Your task to perform on an android device: Empty the shopping cart on target.com. Add bose quietcomfort 35 to the cart on target.com, then select checkout. Image 0: 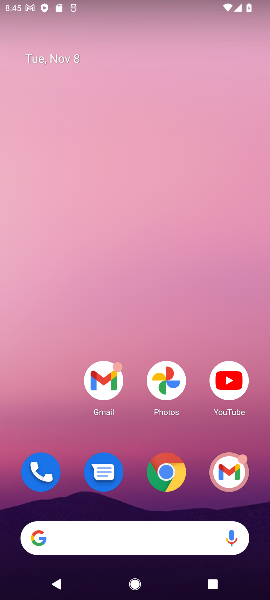
Step 0: click (168, 474)
Your task to perform on an android device: Empty the shopping cart on target.com. Add bose quietcomfort 35 to the cart on target.com, then select checkout. Image 1: 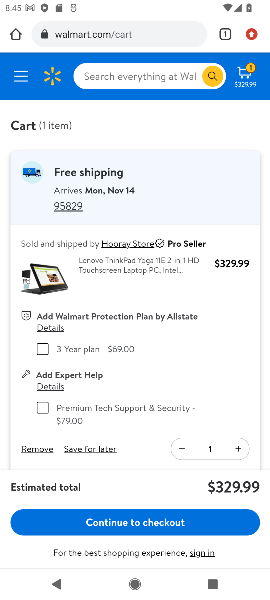
Step 1: click (160, 31)
Your task to perform on an android device: Empty the shopping cart on target.com. Add bose quietcomfort 35 to the cart on target.com, then select checkout. Image 2: 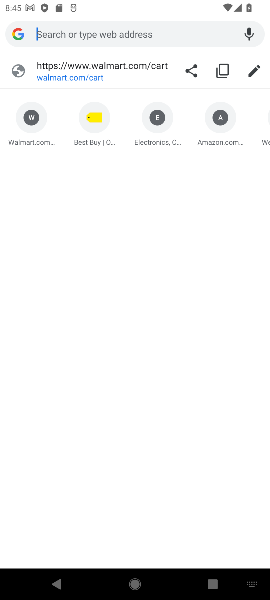
Step 2: type "target.com"
Your task to perform on an android device: Empty the shopping cart on target.com. Add bose quietcomfort 35 to the cart on target.com, then select checkout. Image 3: 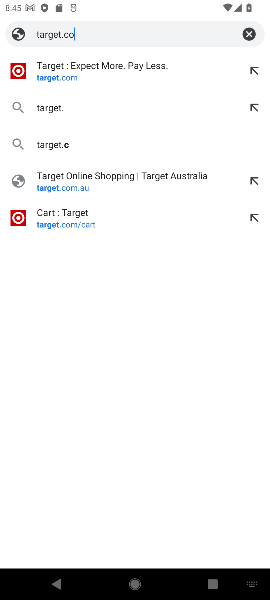
Step 3: press enter
Your task to perform on an android device: Empty the shopping cart on target.com. Add bose quietcomfort 35 to the cart on target.com, then select checkout. Image 4: 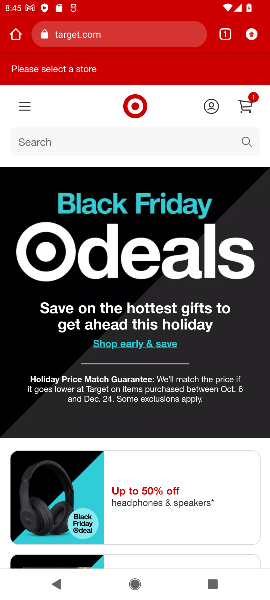
Step 4: click (59, 139)
Your task to perform on an android device: Empty the shopping cart on target.com. Add bose quietcomfort 35 to the cart on target.com, then select checkout. Image 5: 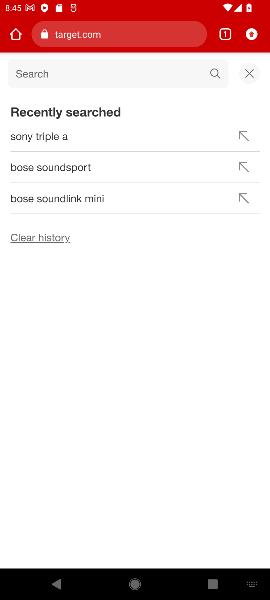
Step 5: type "bose quietcomfort 35"
Your task to perform on an android device: Empty the shopping cart on target.com. Add bose quietcomfort 35 to the cart on target.com, then select checkout. Image 6: 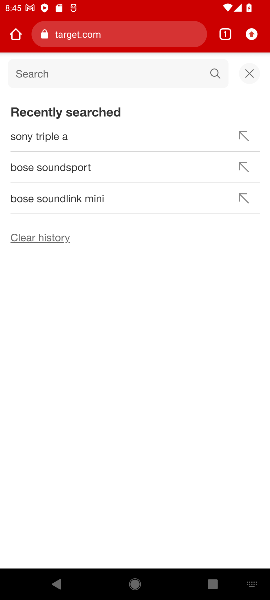
Step 6: press enter
Your task to perform on an android device: Empty the shopping cart on target.com. Add bose quietcomfort 35 to the cart on target.com, then select checkout. Image 7: 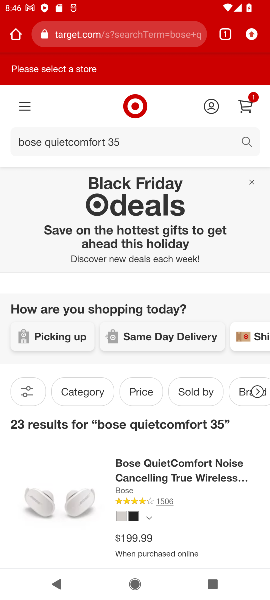
Step 7: task complete